Your task to perform on an android device: turn pop-ups on in chrome Image 0: 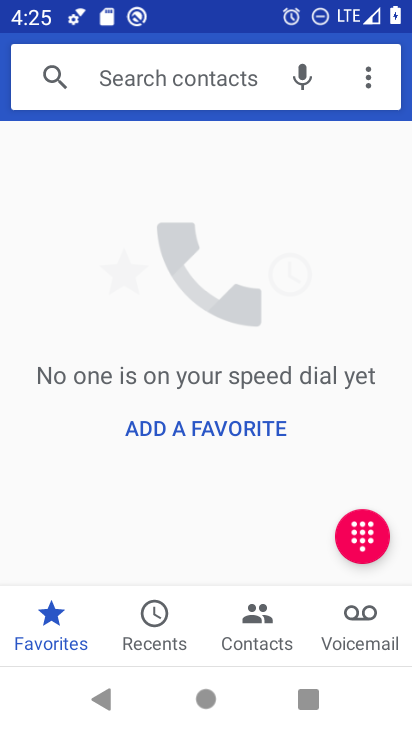
Step 0: press home button
Your task to perform on an android device: turn pop-ups on in chrome Image 1: 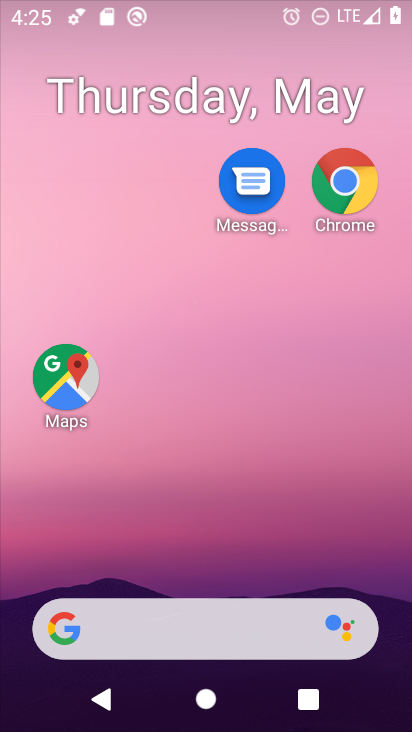
Step 1: drag from (299, 596) to (340, 4)
Your task to perform on an android device: turn pop-ups on in chrome Image 2: 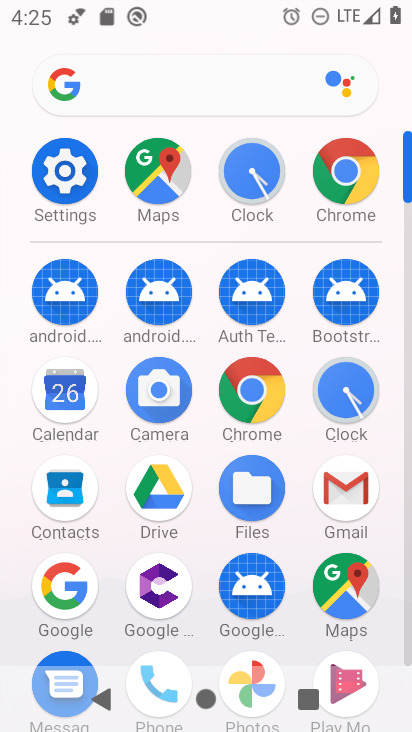
Step 2: click (255, 404)
Your task to perform on an android device: turn pop-ups on in chrome Image 3: 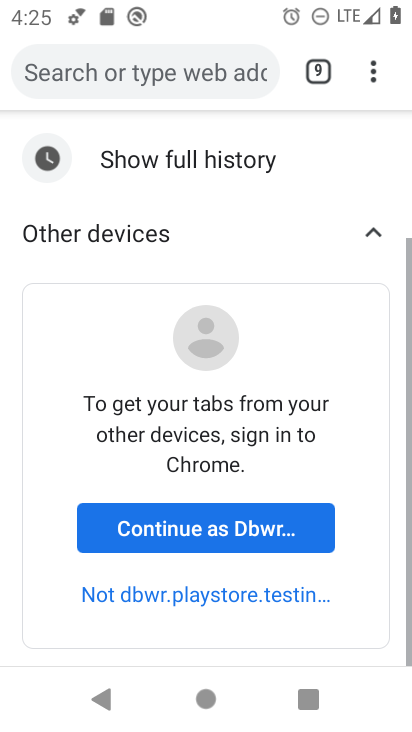
Step 3: drag from (373, 69) to (150, 510)
Your task to perform on an android device: turn pop-ups on in chrome Image 4: 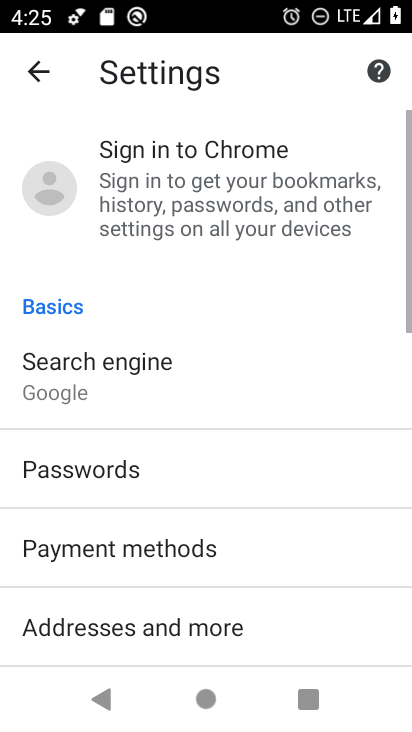
Step 4: drag from (223, 600) to (286, 37)
Your task to perform on an android device: turn pop-ups on in chrome Image 5: 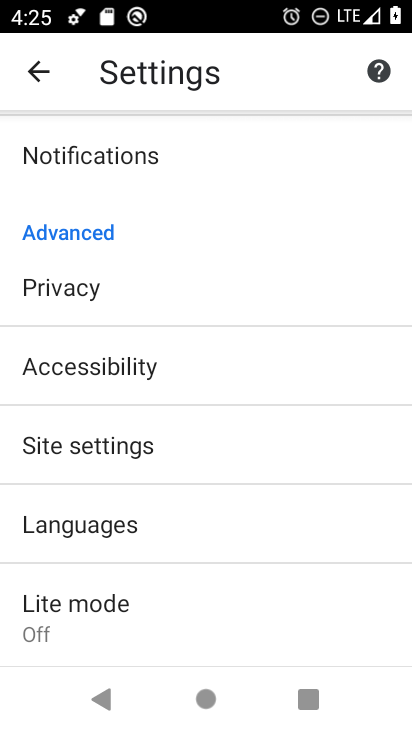
Step 5: click (157, 454)
Your task to perform on an android device: turn pop-ups on in chrome Image 6: 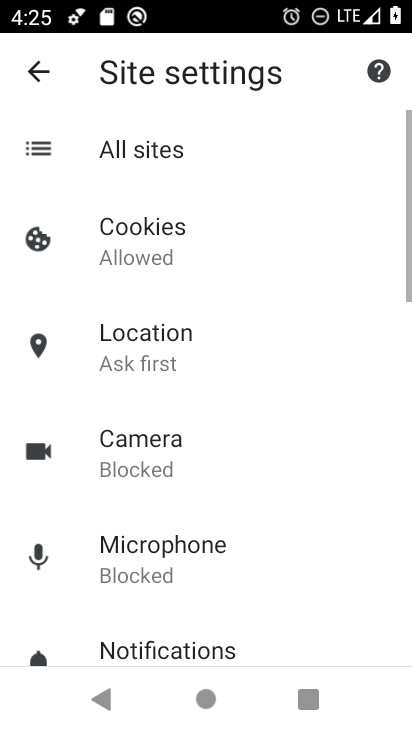
Step 6: drag from (215, 644) to (259, 84)
Your task to perform on an android device: turn pop-ups on in chrome Image 7: 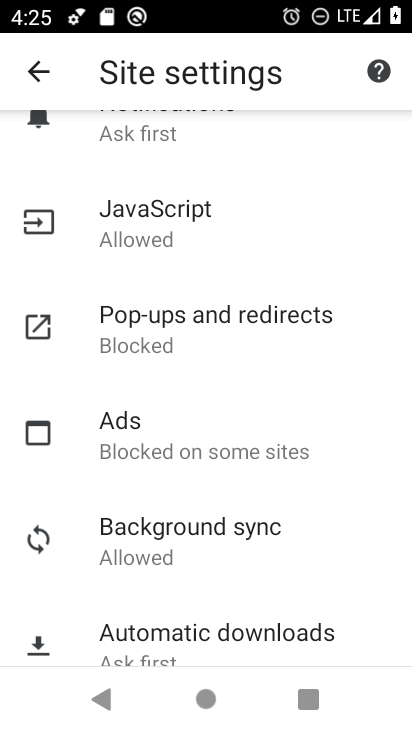
Step 7: click (198, 321)
Your task to perform on an android device: turn pop-ups on in chrome Image 8: 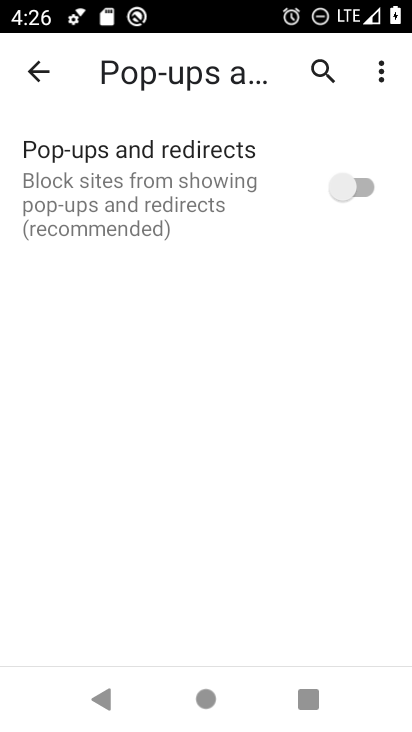
Step 8: click (348, 194)
Your task to perform on an android device: turn pop-ups on in chrome Image 9: 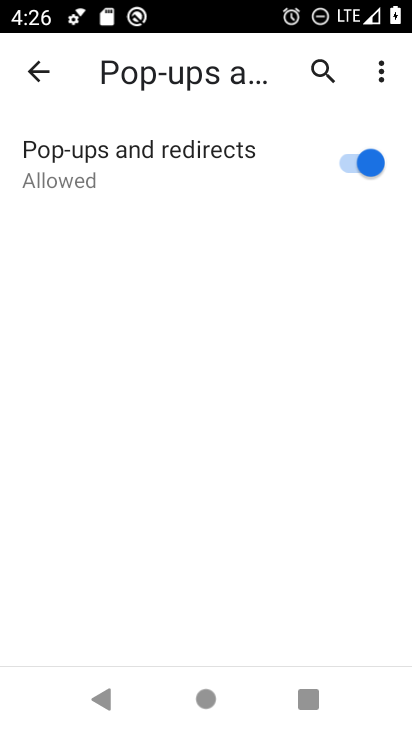
Step 9: task complete